Your task to perform on an android device: Search for "macbook pro 13 inch" on target.com, select the first entry, add it to the cart, then select checkout. Image 0: 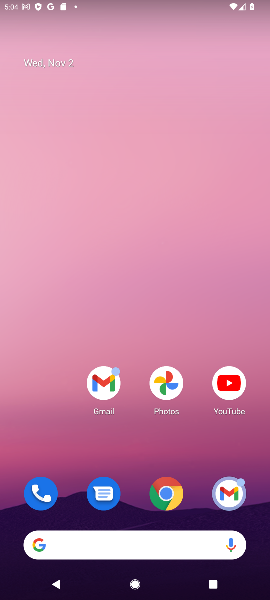
Step 0: drag from (118, 497) to (167, 141)
Your task to perform on an android device: Search for "macbook pro 13 inch" on target.com, select the first entry, add it to the cart, then select checkout. Image 1: 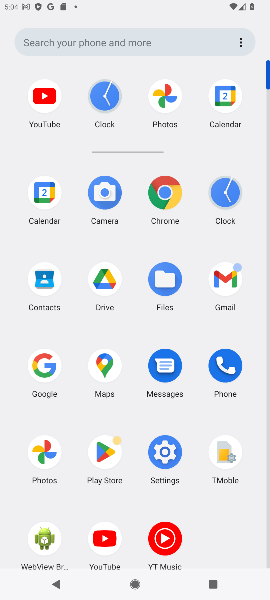
Step 1: click (34, 360)
Your task to perform on an android device: Search for "macbook pro 13 inch" on target.com, select the first entry, add it to the cart, then select checkout. Image 2: 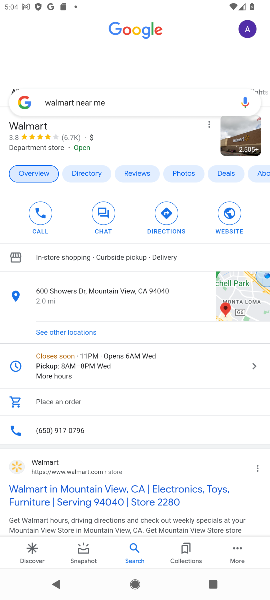
Step 2: click (108, 96)
Your task to perform on an android device: Search for "macbook pro 13 inch" on target.com, select the first entry, add it to the cart, then select checkout. Image 3: 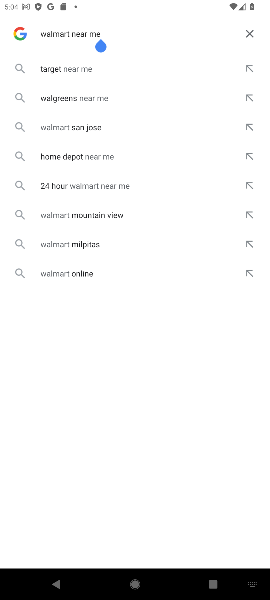
Step 3: click (252, 35)
Your task to perform on an android device: Search for "macbook pro 13 inch" on target.com, select the first entry, add it to the cart, then select checkout. Image 4: 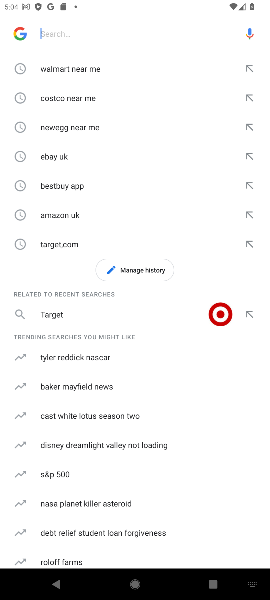
Step 4: click (59, 242)
Your task to perform on an android device: Search for "macbook pro 13 inch" on target.com, select the first entry, add it to the cart, then select checkout. Image 5: 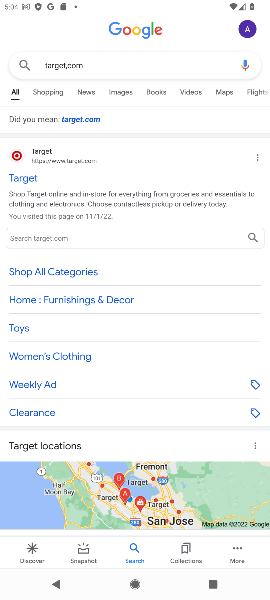
Step 5: click (19, 156)
Your task to perform on an android device: Search for "macbook pro 13 inch" on target.com, select the first entry, add it to the cart, then select checkout. Image 6: 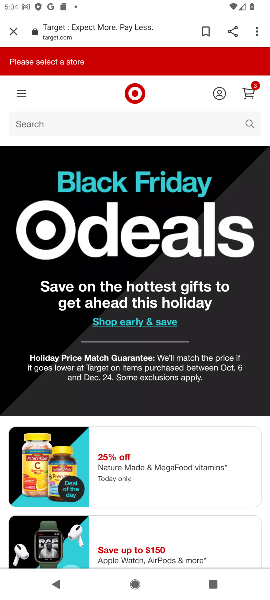
Step 6: click (74, 119)
Your task to perform on an android device: Search for "macbook pro 13 inch" on target.com, select the first entry, add it to the cart, then select checkout. Image 7: 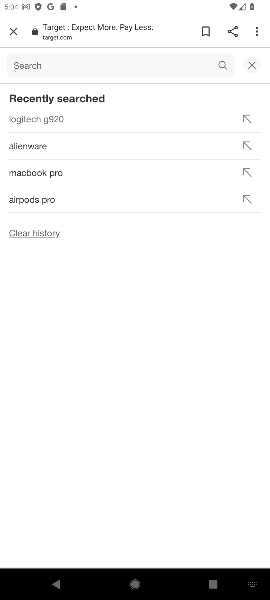
Step 7: click (41, 66)
Your task to perform on an android device: Search for "macbook pro 13 inch" on target.com, select the first entry, add it to the cart, then select checkout. Image 8: 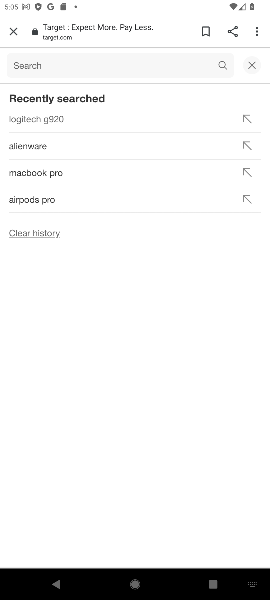
Step 8: type "macbook pro 13 inch "
Your task to perform on an android device: Search for "macbook pro 13 inch" on target.com, select the first entry, add it to the cart, then select checkout. Image 9: 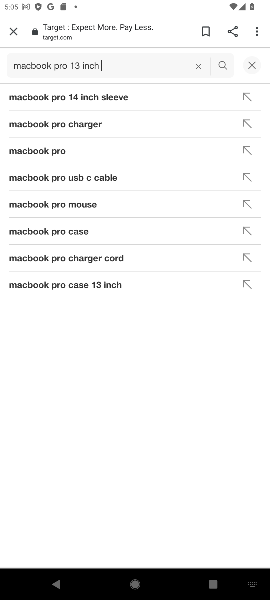
Step 9: click (89, 90)
Your task to perform on an android device: Search for "macbook pro 13 inch" on target.com, select the first entry, add it to the cart, then select checkout. Image 10: 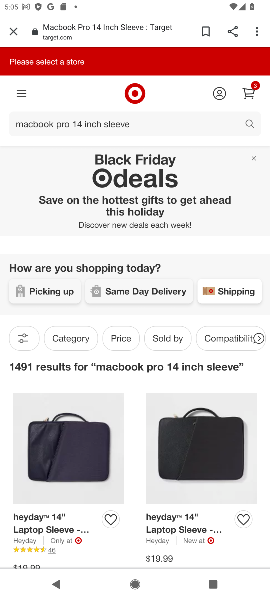
Step 10: drag from (96, 506) to (120, 277)
Your task to perform on an android device: Search for "macbook pro 13 inch" on target.com, select the first entry, add it to the cart, then select checkout. Image 11: 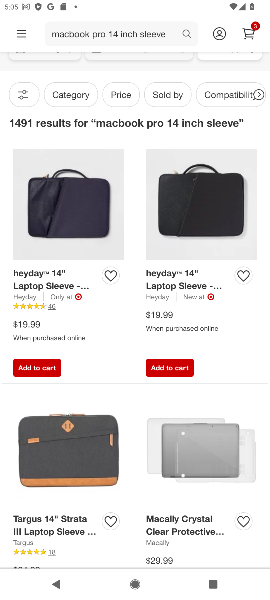
Step 11: press back button
Your task to perform on an android device: Search for "macbook pro 13 inch" on target.com, select the first entry, add it to the cart, then select checkout. Image 12: 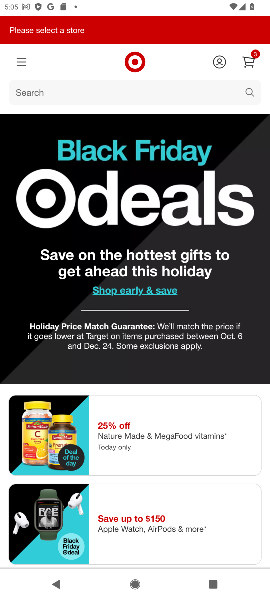
Step 12: click (101, 92)
Your task to perform on an android device: Search for "macbook pro 13 inch" on target.com, select the first entry, add it to the cart, then select checkout. Image 13: 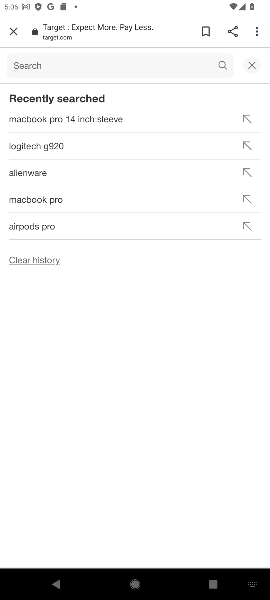
Step 13: click (93, 60)
Your task to perform on an android device: Search for "macbook pro 13 inch" on target.com, select the first entry, add it to the cart, then select checkout. Image 14: 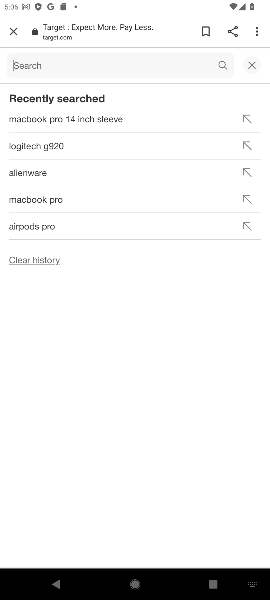
Step 14: type "macbook pro 13  "
Your task to perform on an android device: Search for "macbook pro 13 inch" on target.com, select the first entry, add it to the cart, then select checkout. Image 15: 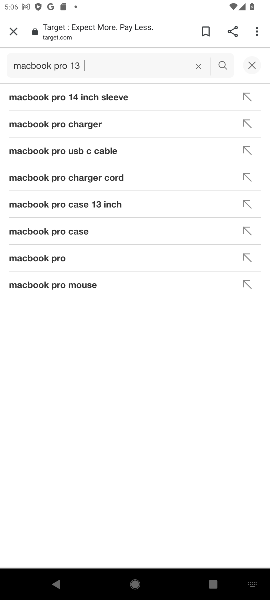
Step 15: click (64, 260)
Your task to perform on an android device: Search for "macbook pro 13 inch" on target.com, select the first entry, add it to the cart, then select checkout. Image 16: 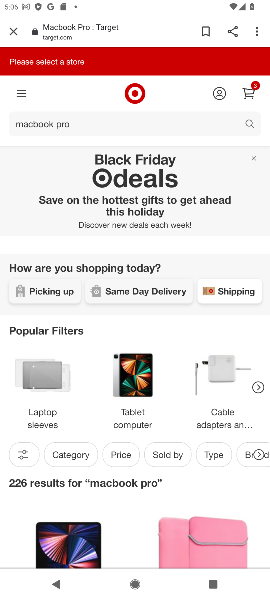
Step 16: drag from (78, 437) to (110, 211)
Your task to perform on an android device: Search for "macbook pro 13 inch" on target.com, select the first entry, add it to the cart, then select checkout. Image 17: 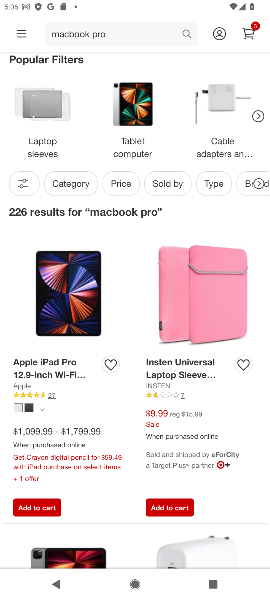
Step 17: click (86, 307)
Your task to perform on an android device: Search for "macbook pro 13 inch" on target.com, select the first entry, add it to the cart, then select checkout. Image 18: 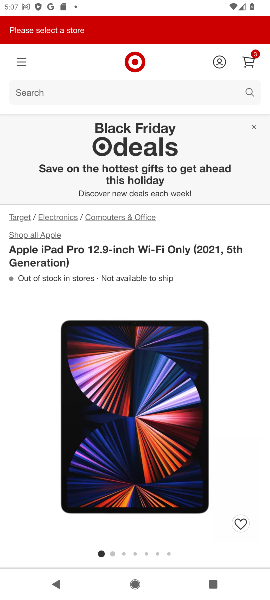
Step 18: drag from (144, 438) to (153, 165)
Your task to perform on an android device: Search for "macbook pro 13 inch" on target.com, select the first entry, add it to the cart, then select checkout. Image 19: 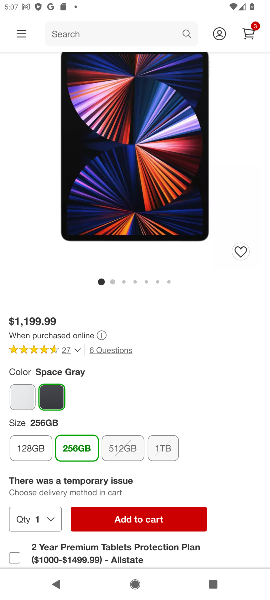
Step 19: click (110, 512)
Your task to perform on an android device: Search for "macbook pro 13 inch" on target.com, select the first entry, add it to the cart, then select checkout. Image 20: 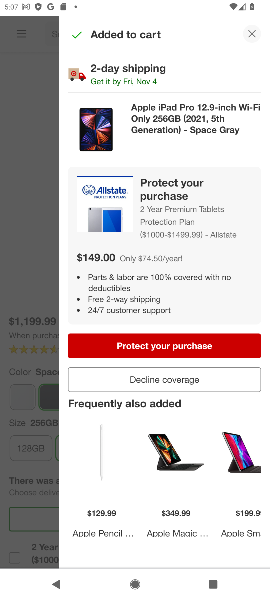
Step 20: task complete